Your task to perform on an android device: turn on translation in the chrome app Image 0: 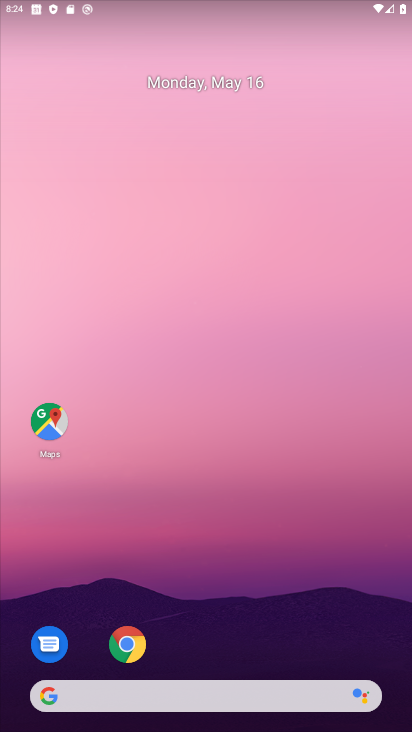
Step 0: click (117, 633)
Your task to perform on an android device: turn on translation in the chrome app Image 1: 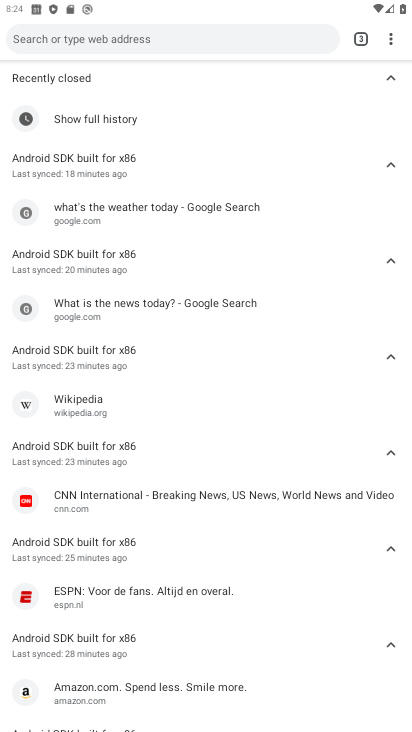
Step 1: click (392, 38)
Your task to perform on an android device: turn on translation in the chrome app Image 2: 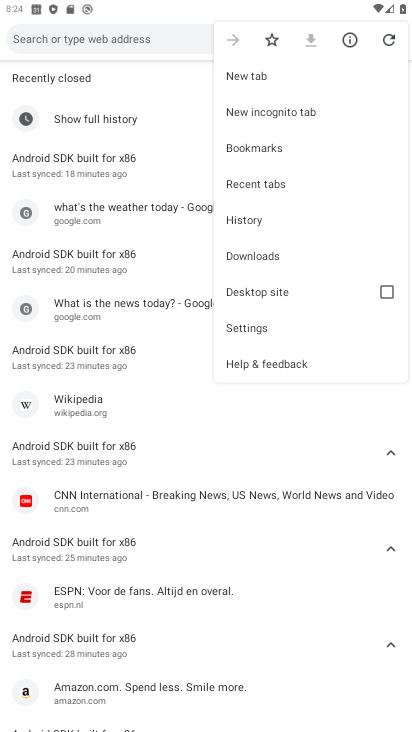
Step 2: click (275, 331)
Your task to perform on an android device: turn on translation in the chrome app Image 3: 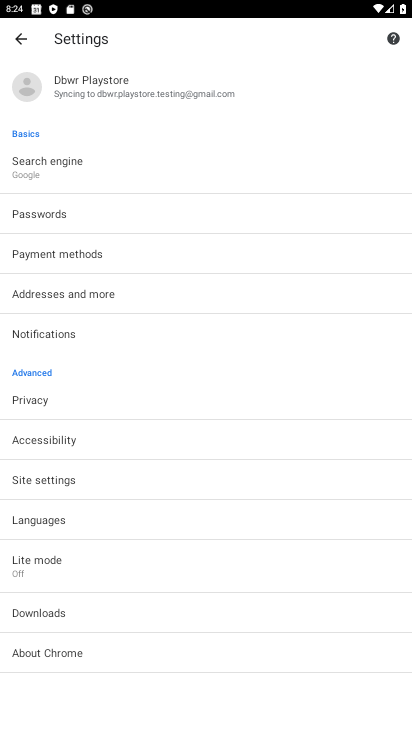
Step 3: click (78, 518)
Your task to perform on an android device: turn on translation in the chrome app Image 4: 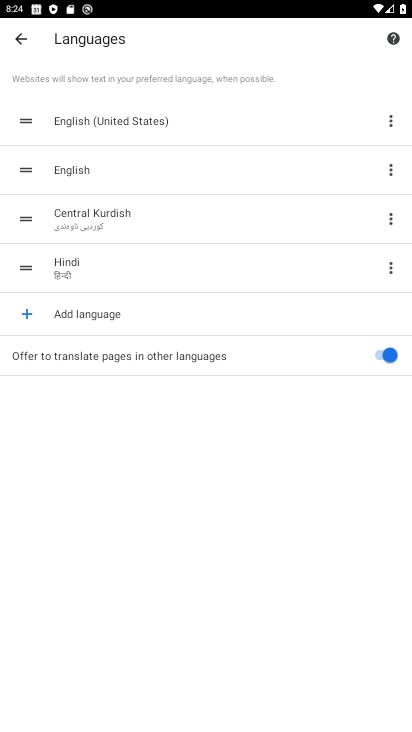
Step 4: task complete